Your task to perform on an android device: open app "eBay: The shopping marketplace" (install if not already installed) Image 0: 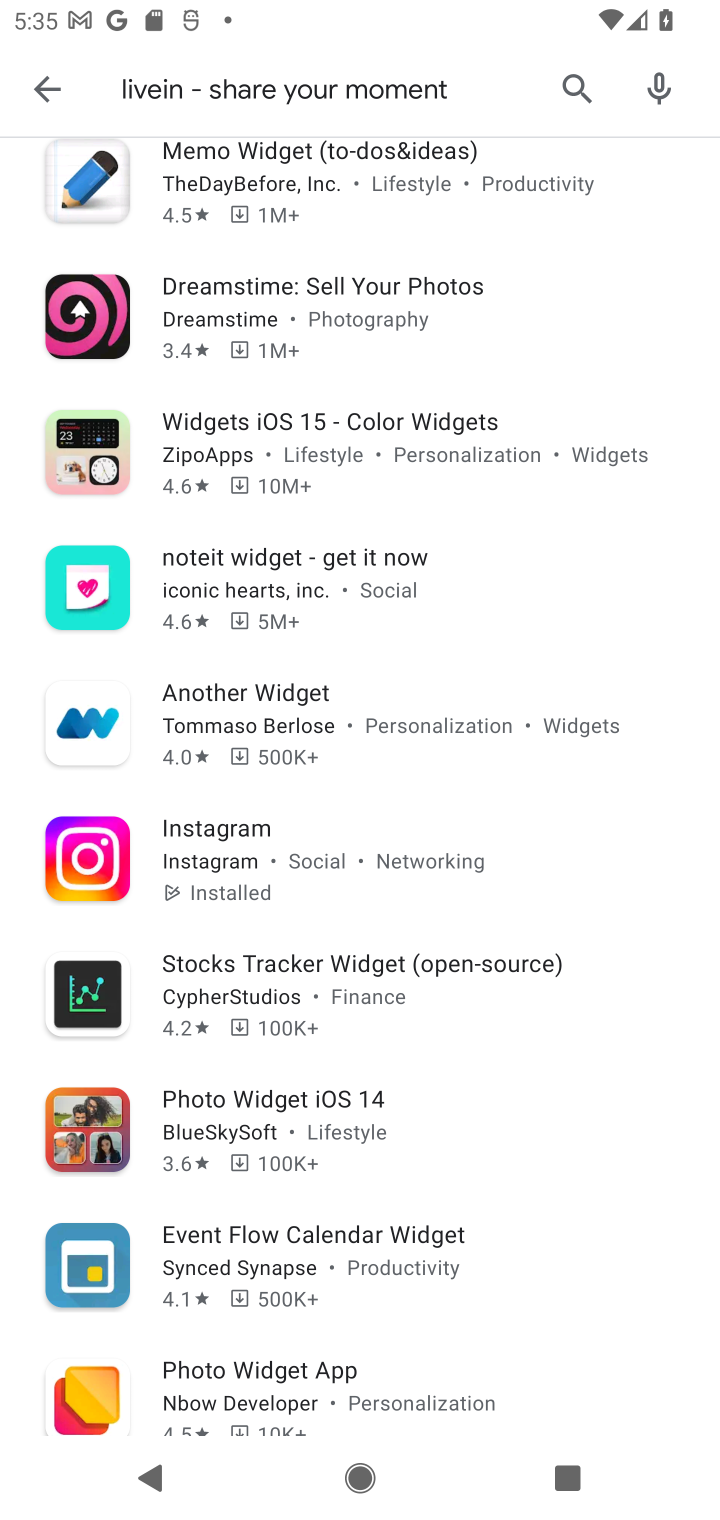
Step 0: press home button
Your task to perform on an android device: open app "eBay: The shopping marketplace" (install if not already installed) Image 1: 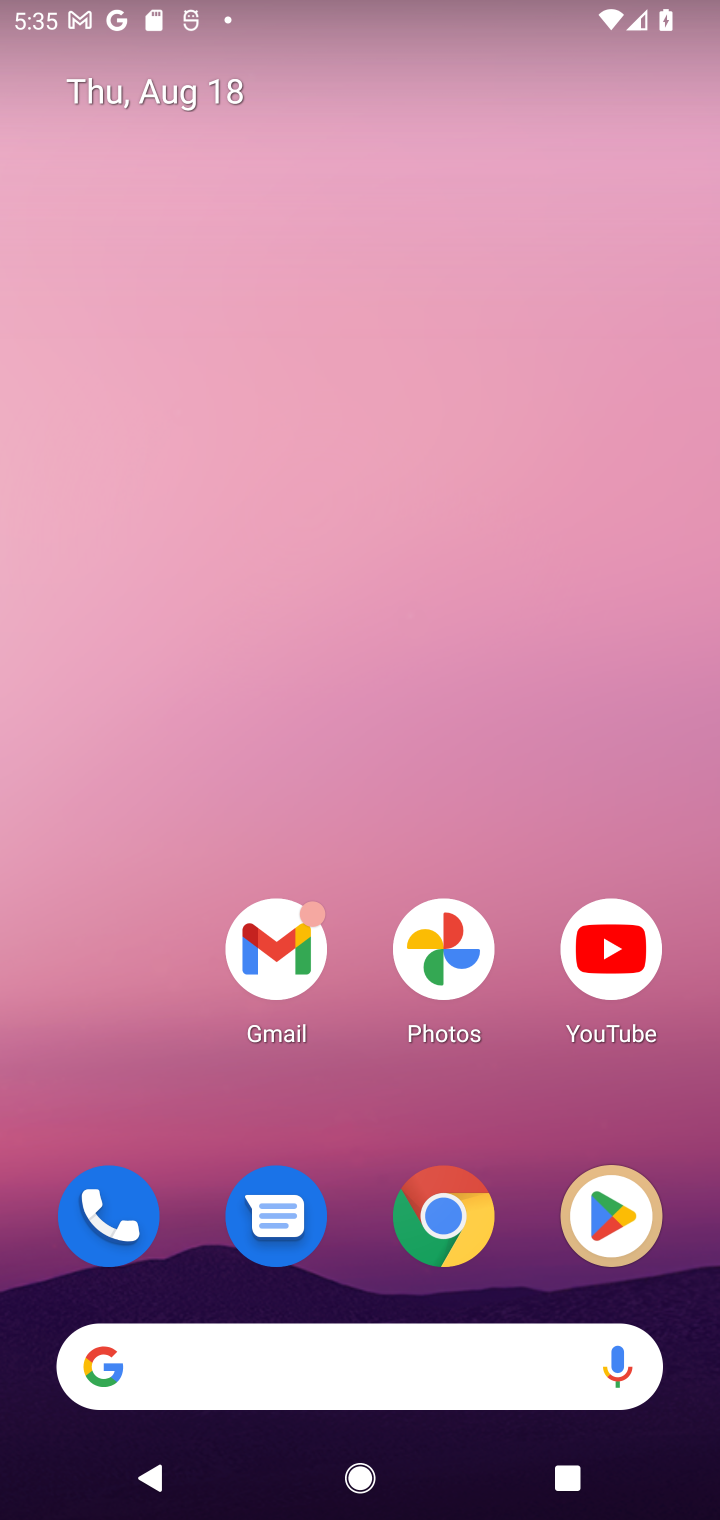
Step 1: click (605, 1218)
Your task to perform on an android device: open app "eBay: The shopping marketplace" (install if not already installed) Image 2: 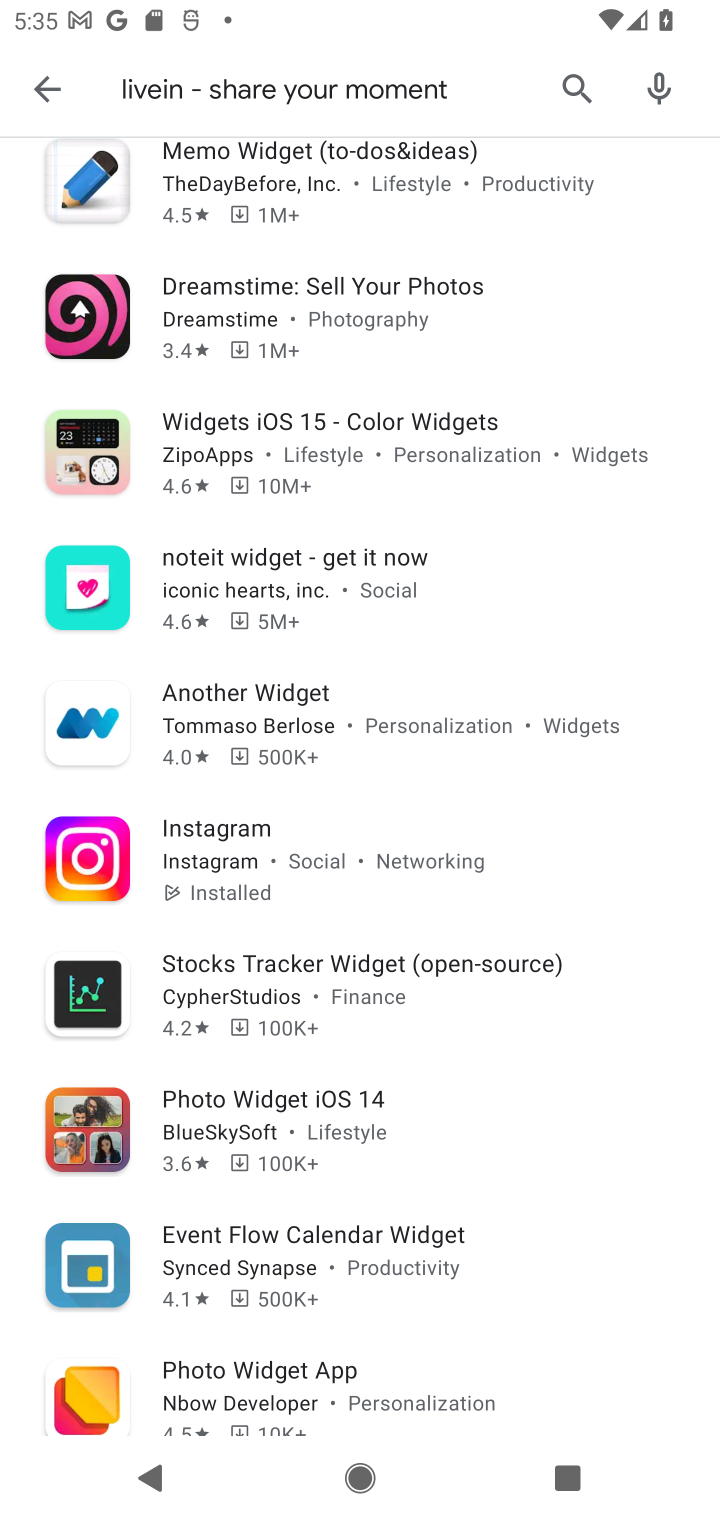
Step 2: click (567, 85)
Your task to perform on an android device: open app "eBay: The shopping marketplace" (install if not already installed) Image 3: 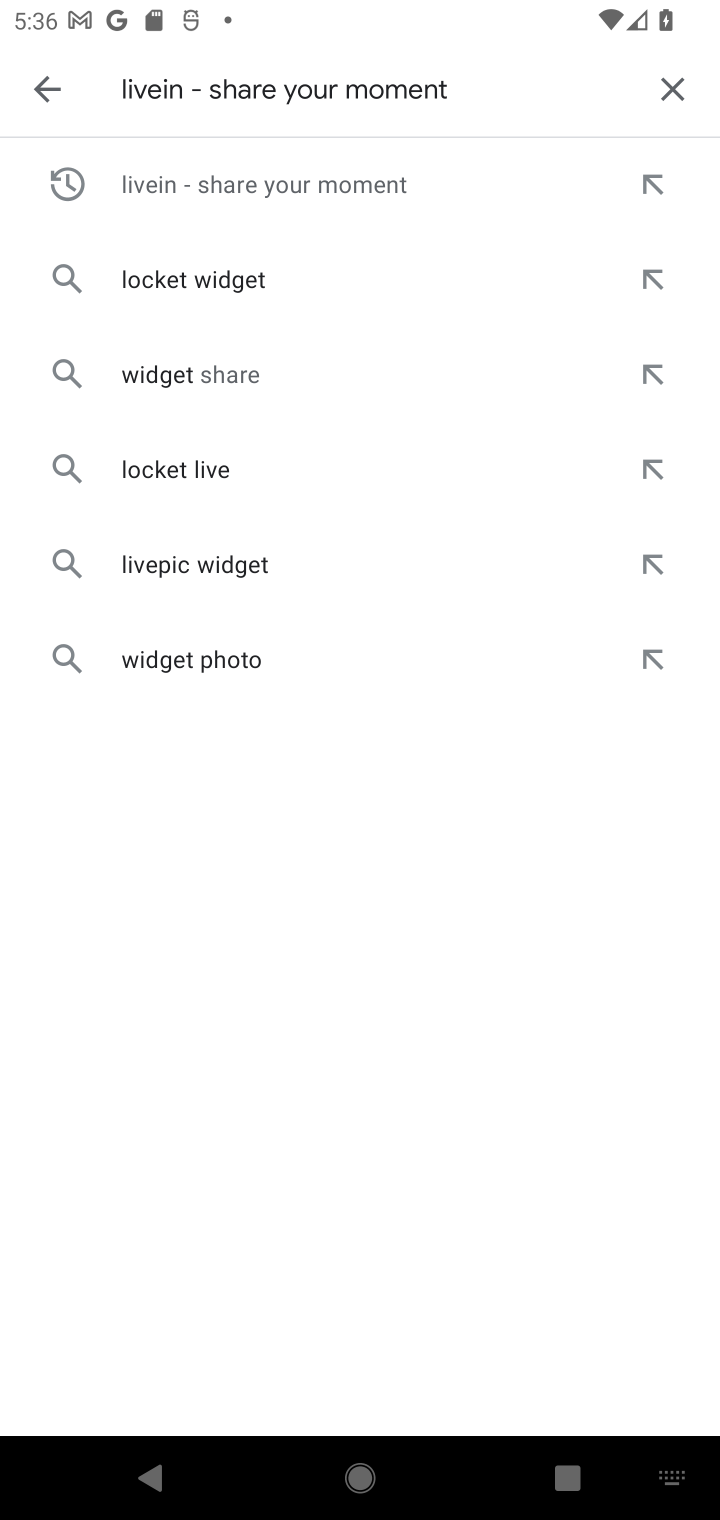
Step 3: click (670, 87)
Your task to perform on an android device: open app "eBay: The shopping marketplace" (install if not already installed) Image 4: 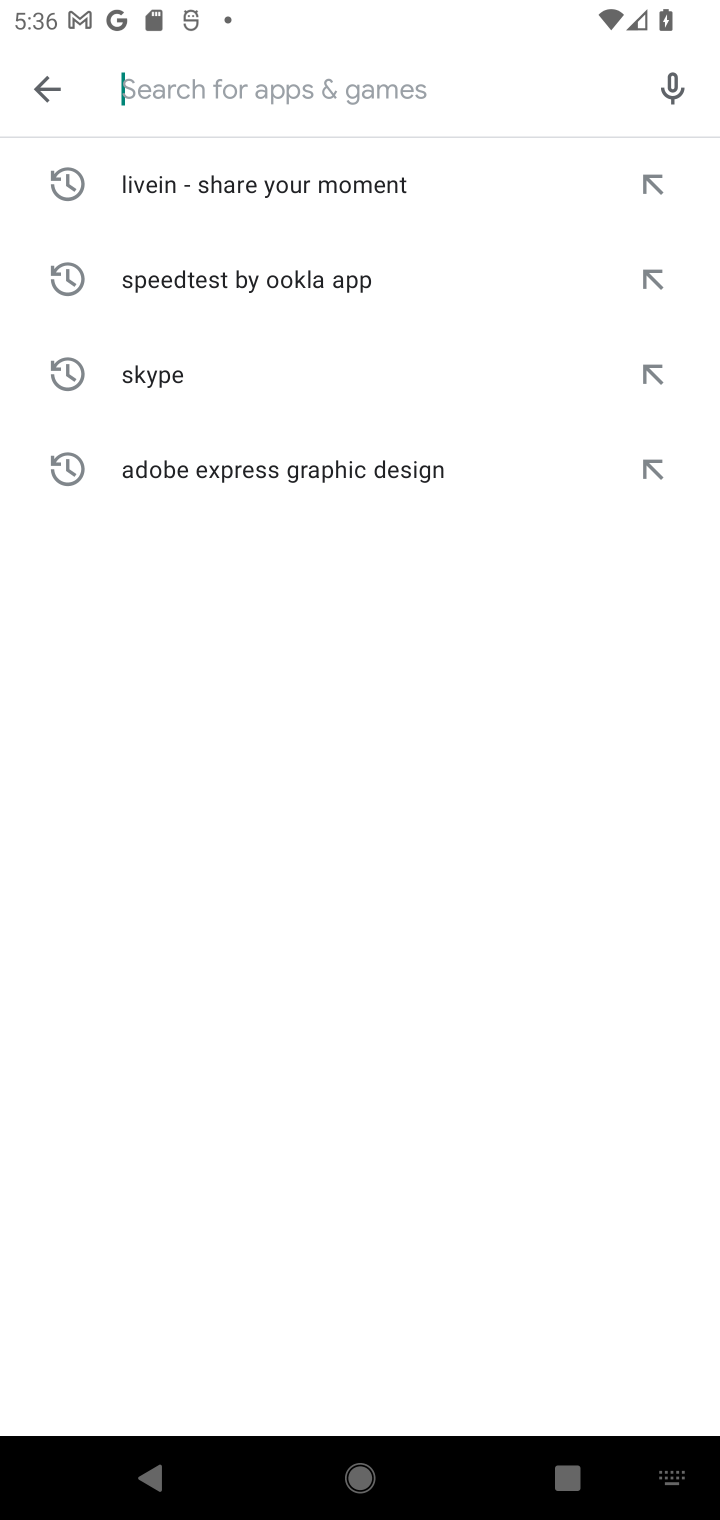
Step 4: type "eBay: The shopping marketplace"
Your task to perform on an android device: open app "eBay: The shopping marketplace" (install if not already installed) Image 5: 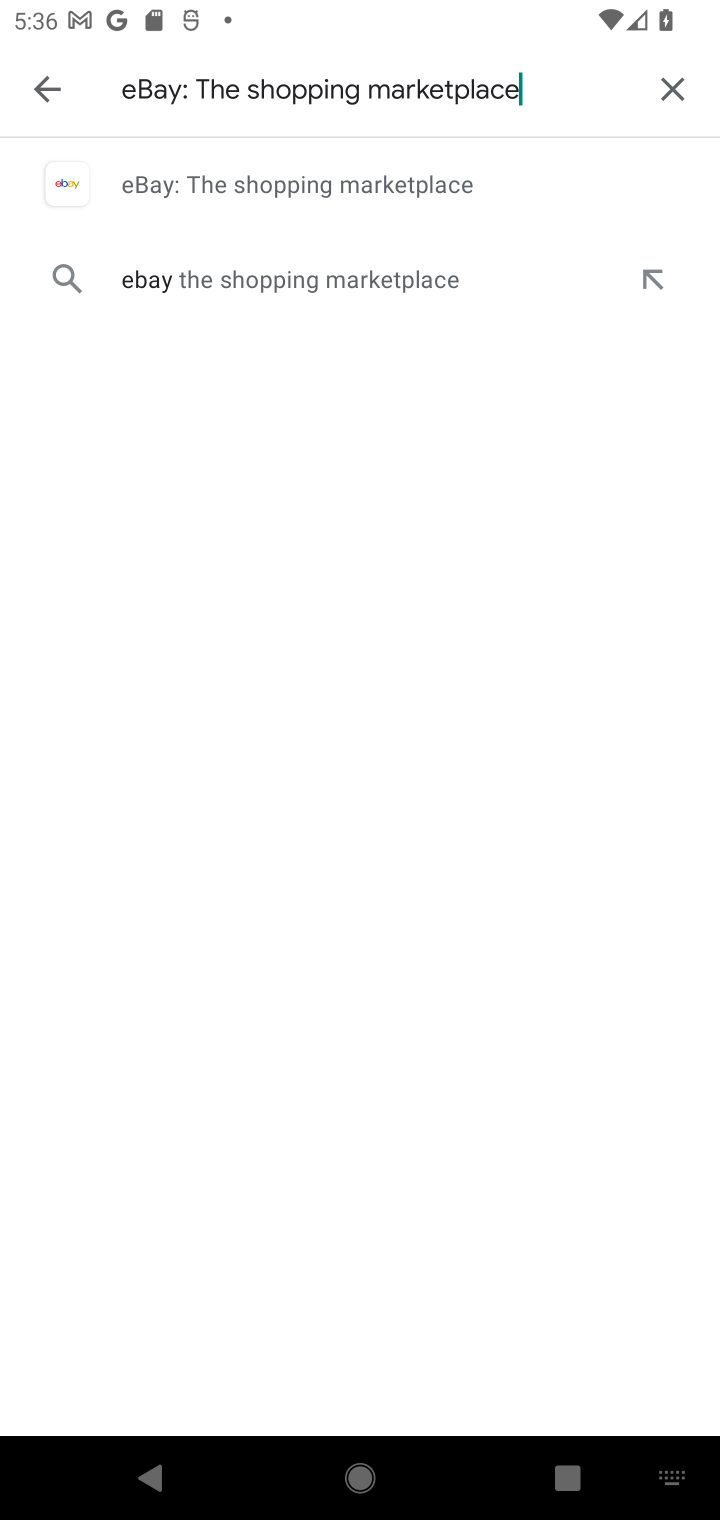
Step 5: click (214, 179)
Your task to perform on an android device: open app "eBay: The shopping marketplace" (install if not already installed) Image 6: 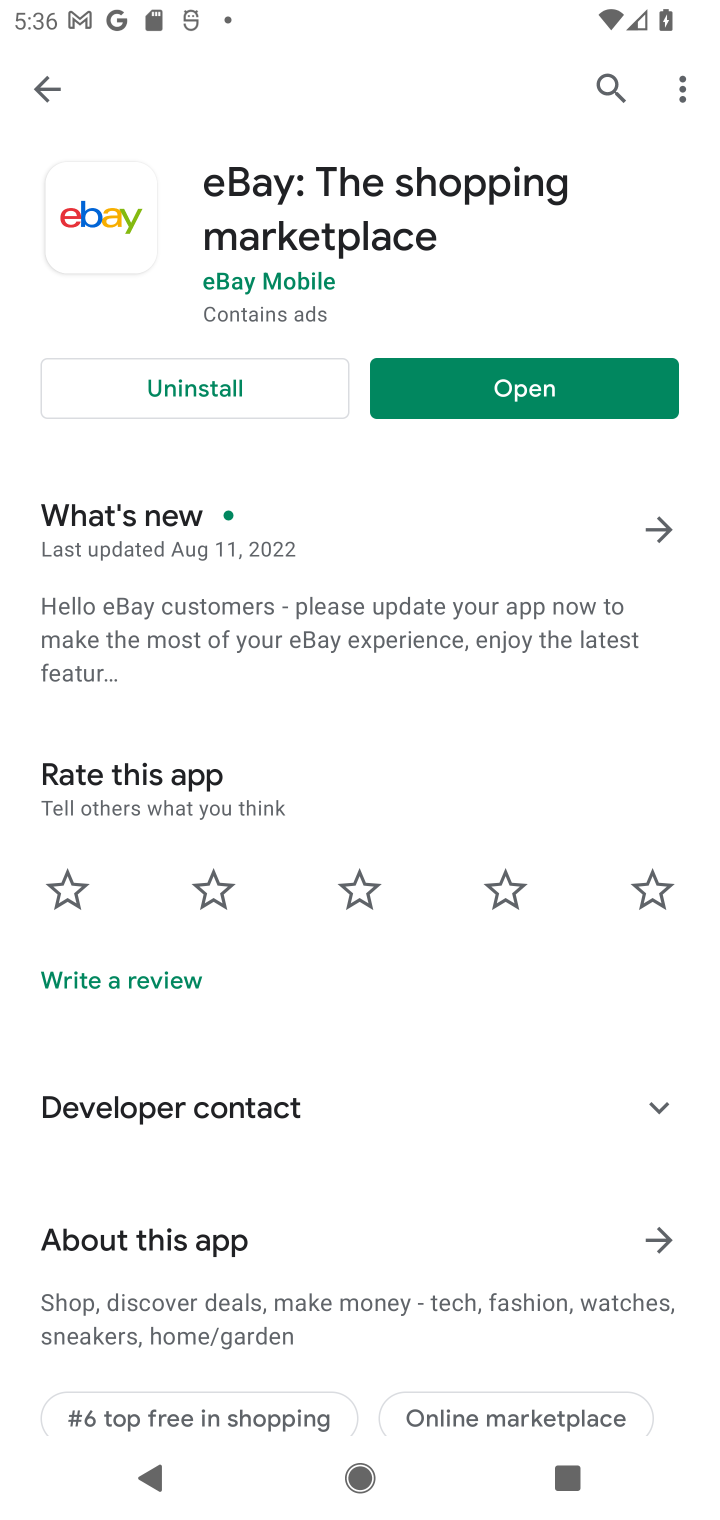
Step 6: click (509, 391)
Your task to perform on an android device: open app "eBay: The shopping marketplace" (install if not already installed) Image 7: 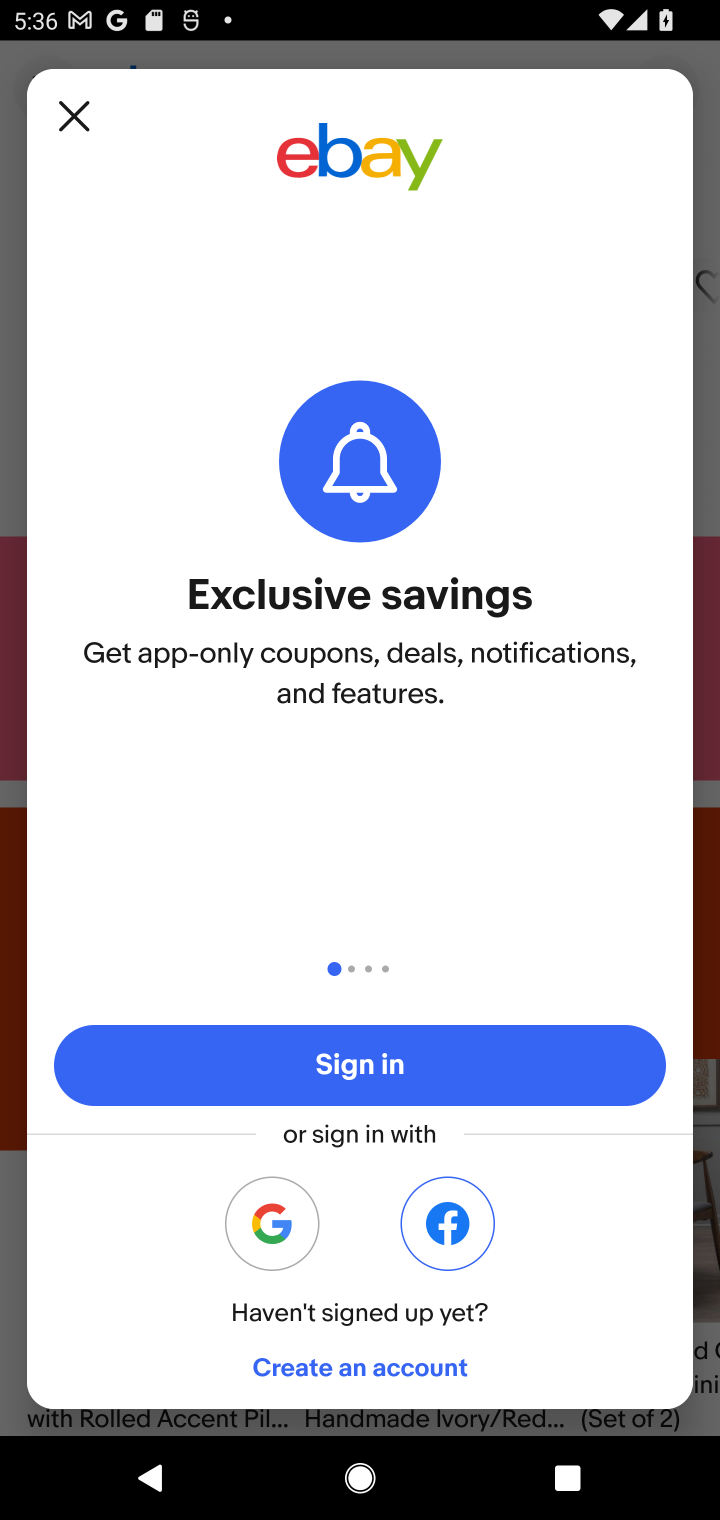
Step 7: task complete